Your task to perform on an android device: clear all cookies in the chrome app Image 0: 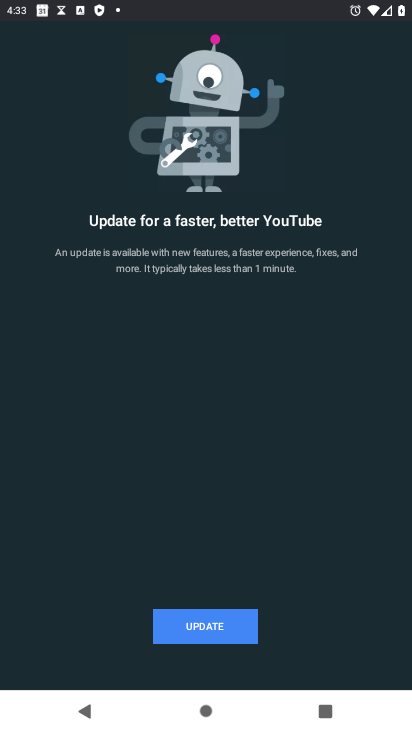
Step 0: press home button
Your task to perform on an android device: clear all cookies in the chrome app Image 1: 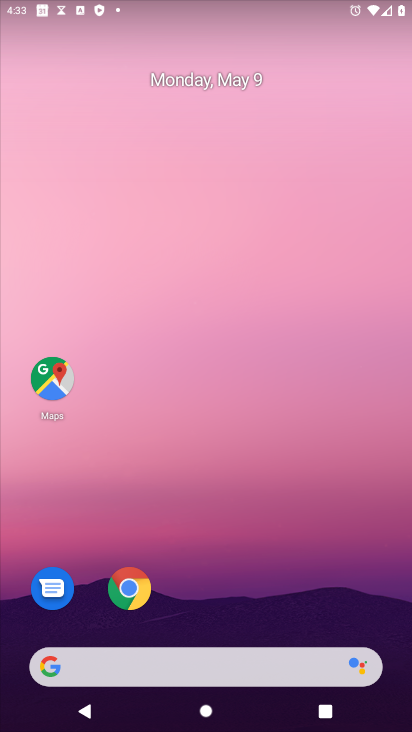
Step 1: drag from (269, 572) to (195, 56)
Your task to perform on an android device: clear all cookies in the chrome app Image 2: 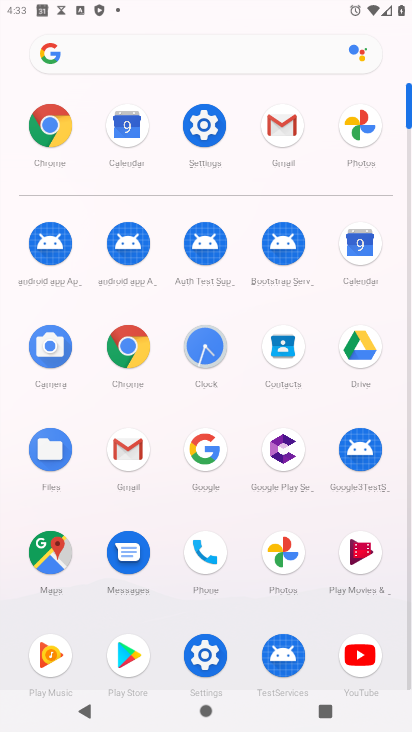
Step 2: click (125, 350)
Your task to perform on an android device: clear all cookies in the chrome app Image 3: 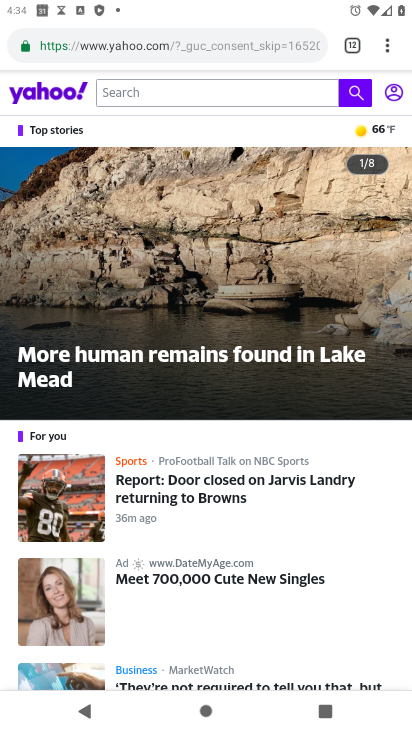
Step 3: click (388, 38)
Your task to perform on an android device: clear all cookies in the chrome app Image 4: 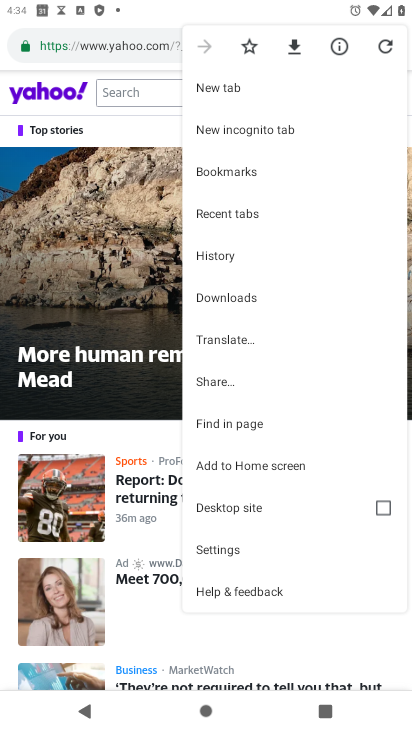
Step 4: click (240, 258)
Your task to perform on an android device: clear all cookies in the chrome app Image 5: 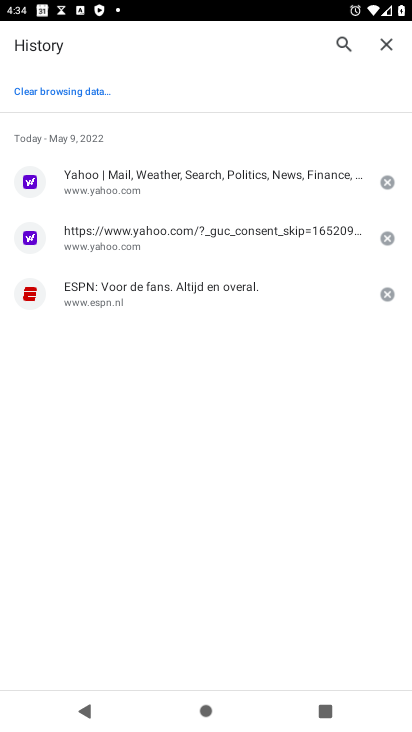
Step 5: click (73, 91)
Your task to perform on an android device: clear all cookies in the chrome app Image 6: 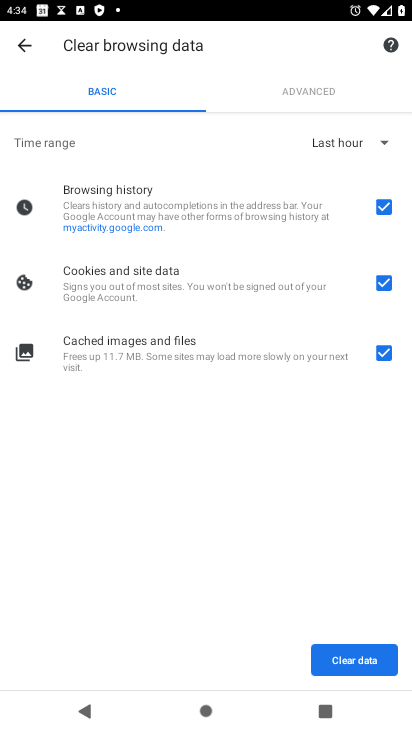
Step 6: click (356, 667)
Your task to perform on an android device: clear all cookies in the chrome app Image 7: 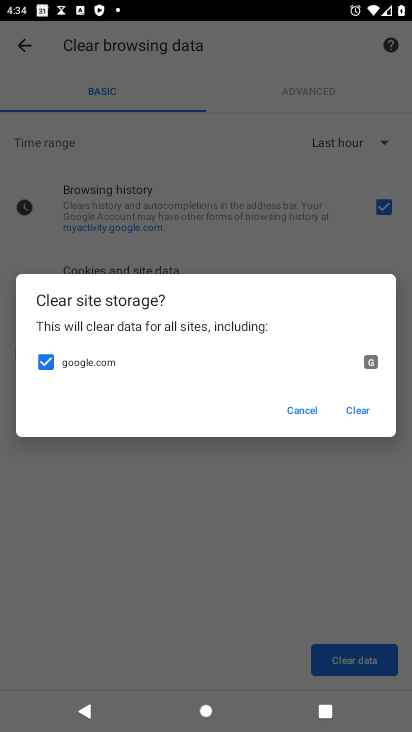
Step 7: click (364, 409)
Your task to perform on an android device: clear all cookies in the chrome app Image 8: 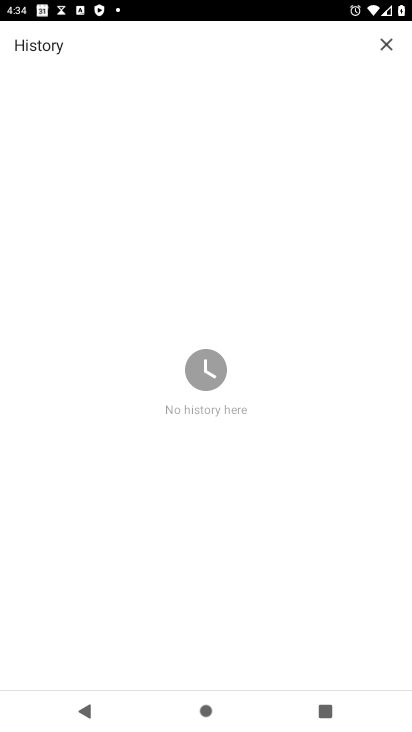
Step 8: task complete